Your task to perform on an android device: Do I have any events this weekend? Image 0: 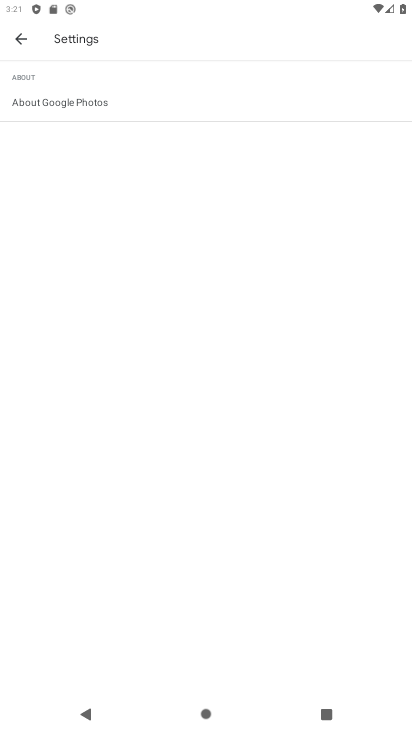
Step 0: press home button
Your task to perform on an android device: Do I have any events this weekend? Image 1: 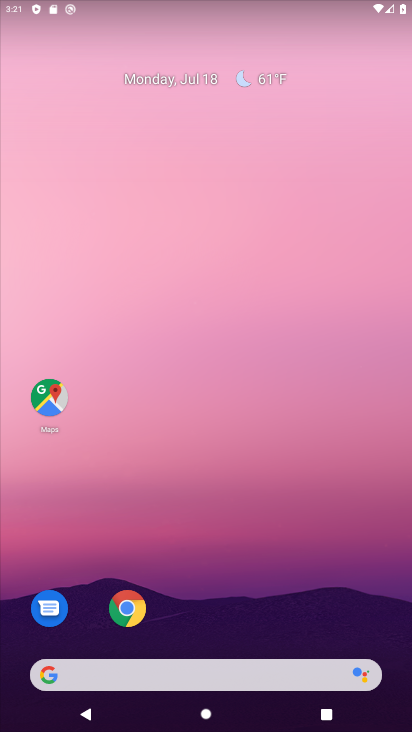
Step 1: drag from (316, 641) to (308, 163)
Your task to perform on an android device: Do I have any events this weekend? Image 2: 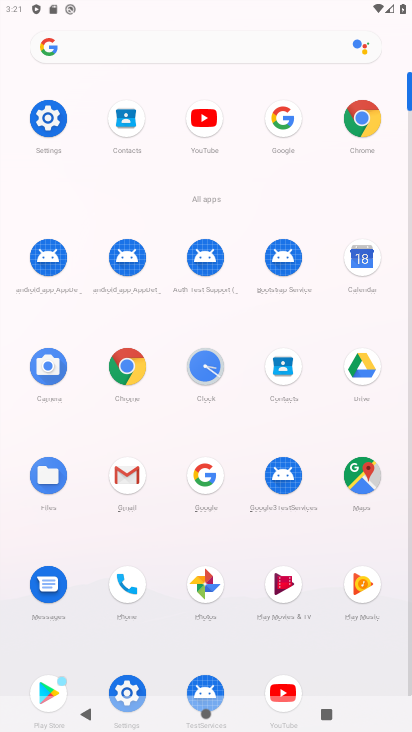
Step 2: click (368, 250)
Your task to perform on an android device: Do I have any events this weekend? Image 3: 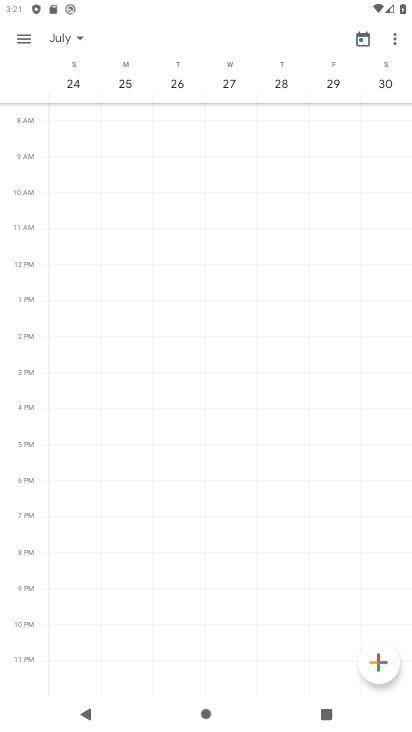
Step 3: click (63, 34)
Your task to perform on an android device: Do I have any events this weekend? Image 4: 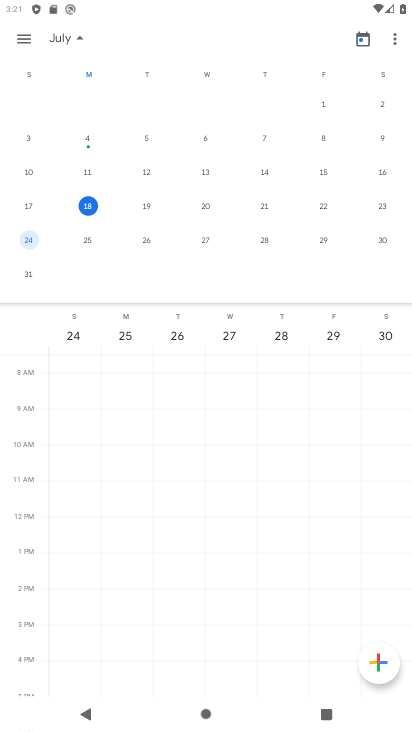
Step 4: click (382, 202)
Your task to perform on an android device: Do I have any events this weekend? Image 5: 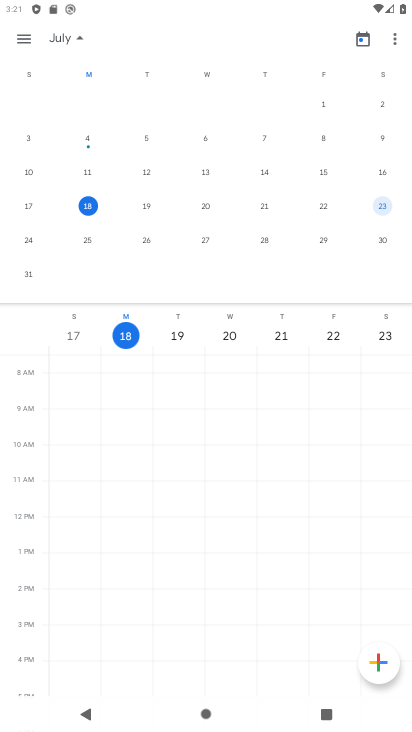
Step 5: click (387, 204)
Your task to perform on an android device: Do I have any events this weekend? Image 6: 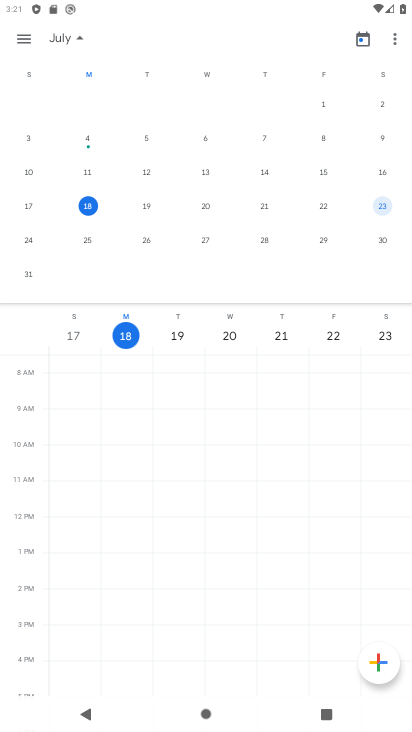
Step 6: click (387, 340)
Your task to perform on an android device: Do I have any events this weekend? Image 7: 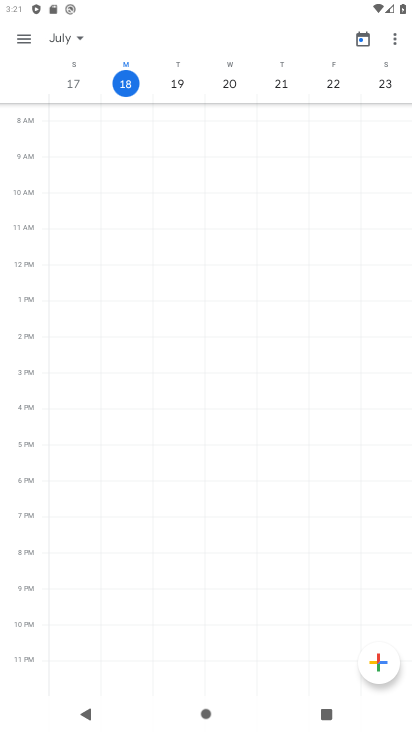
Step 7: click (394, 84)
Your task to perform on an android device: Do I have any events this weekend? Image 8: 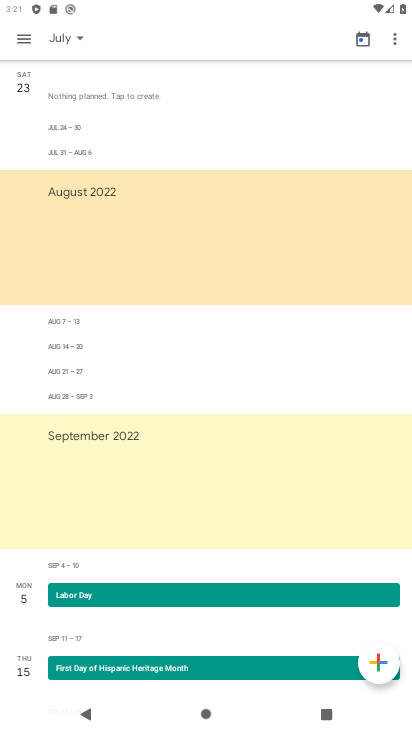
Step 8: task complete